Your task to perform on an android device: Go to calendar. Show me events next week Image 0: 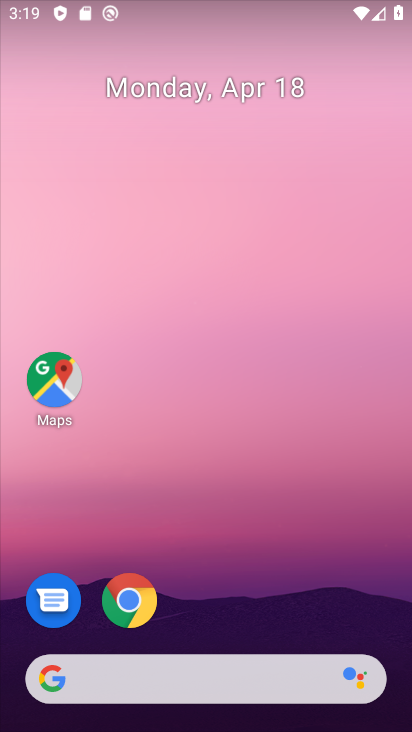
Step 0: drag from (348, 184) to (348, 123)
Your task to perform on an android device: Go to calendar. Show me events next week Image 1: 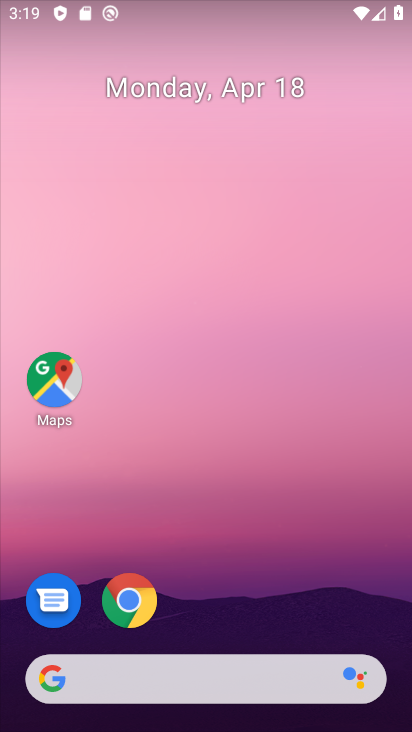
Step 1: drag from (387, 629) to (356, 76)
Your task to perform on an android device: Go to calendar. Show me events next week Image 2: 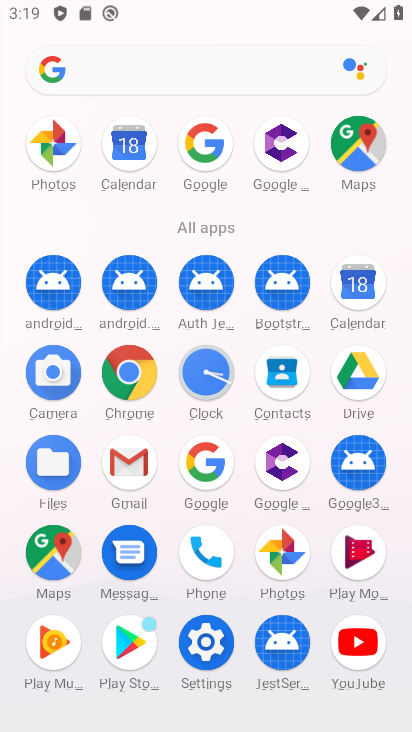
Step 2: click (352, 291)
Your task to perform on an android device: Go to calendar. Show me events next week Image 3: 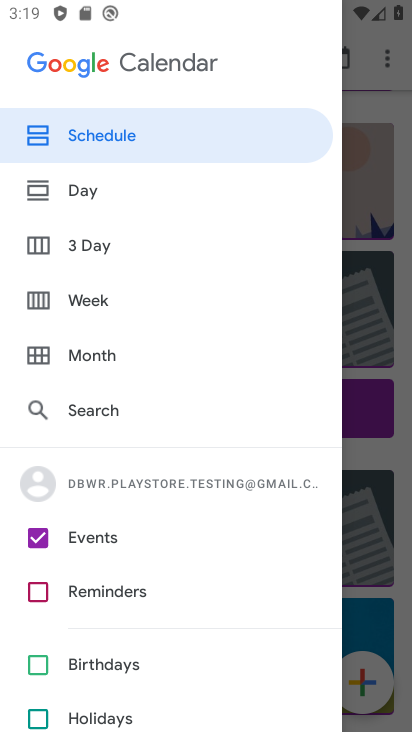
Step 3: click (380, 331)
Your task to perform on an android device: Go to calendar. Show me events next week Image 4: 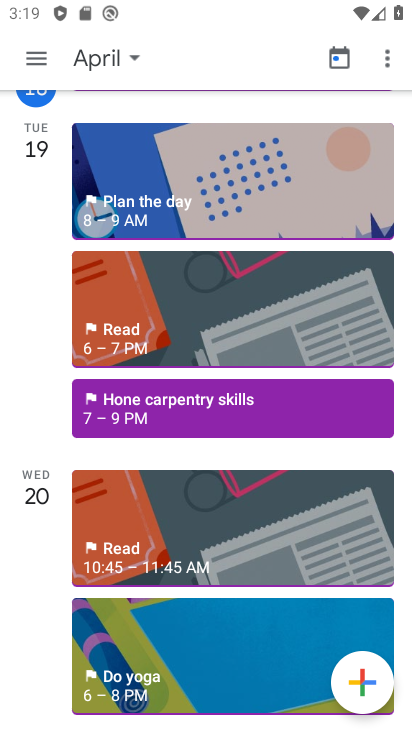
Step 4: click (131, 53)
Your task to perform on an android device: Go to calendar. Show me events next week Image 5: 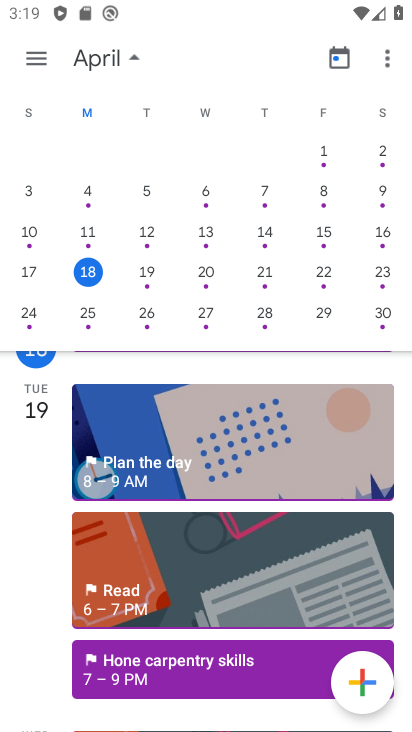
Step 5: drag from (360, 206) to (78, 185)
Your task to perform on an android device: Go to calendar. Show me events next week Image 6: 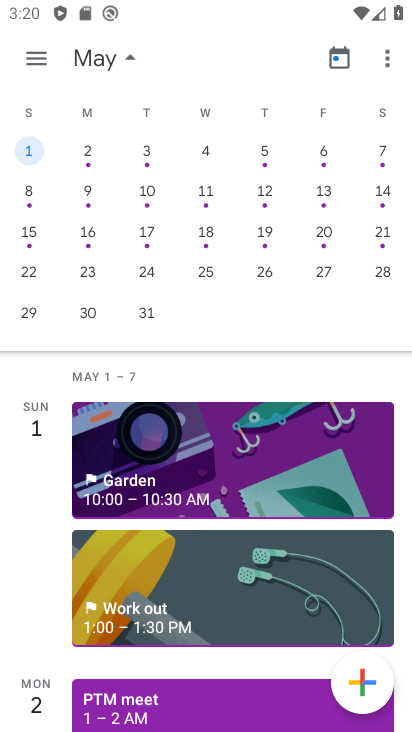
Step 6: drag from (45, 204) to (243, 219)
Your task to perform on an android device: Go to calendar. Show me events next week Image 7: 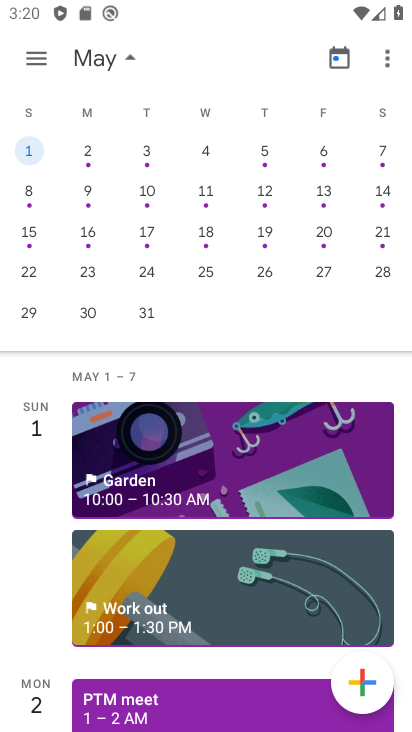
Step 7: drag from (7, 205) to (411, 174)
Your task to perform on an android device: Go to calendar. Show me events next week Image 8: 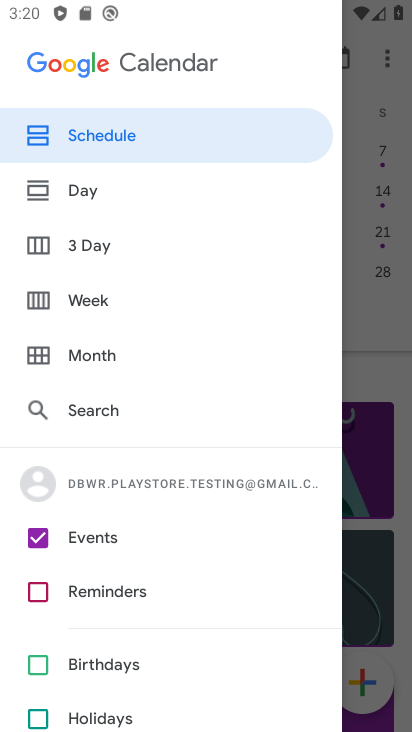
Step 8: click (404, 336)
Your task to perform on an android device: Go to calendar. Show me events next week Image 9: 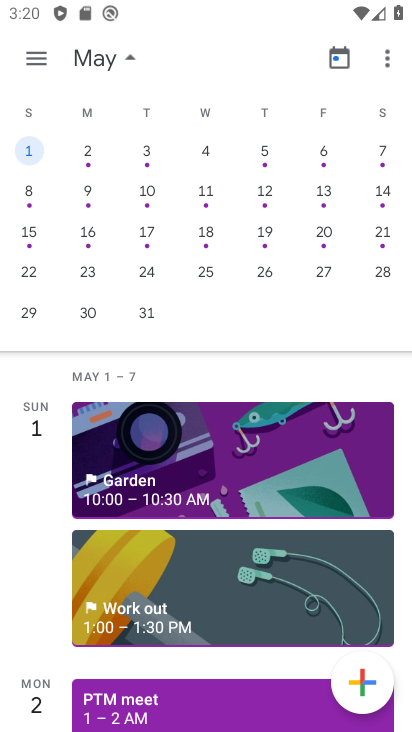
Step 9: drag from (14, 211) to (405, 230)
Your task to perform on an android device: Go to calendar. Show me events next week Image 10: 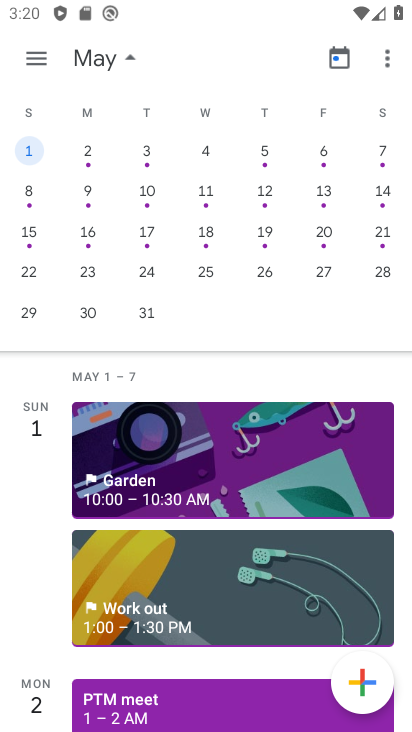
Step 10: drag from (5, 243) to (383, 242)
Your task to perform on an android device: Go to calendar. Show me events next week Image 11: 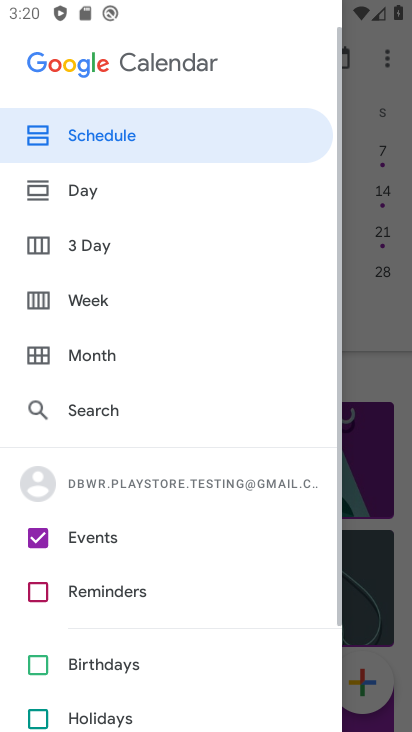
Step 11: click (385, 329)
Your task to perform on an android device: Go to calendar. Show me events next week Image 12: 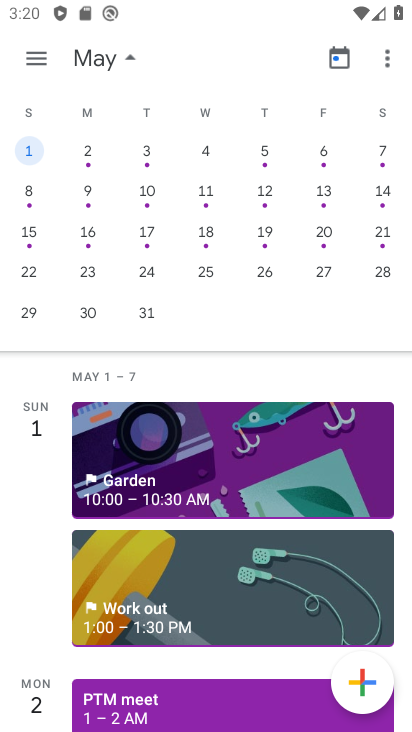
Step 12: drag from (30, 287) to (351, 305)
Your task to perform on an android device: Go to calendar. Show me events next week Image 13: 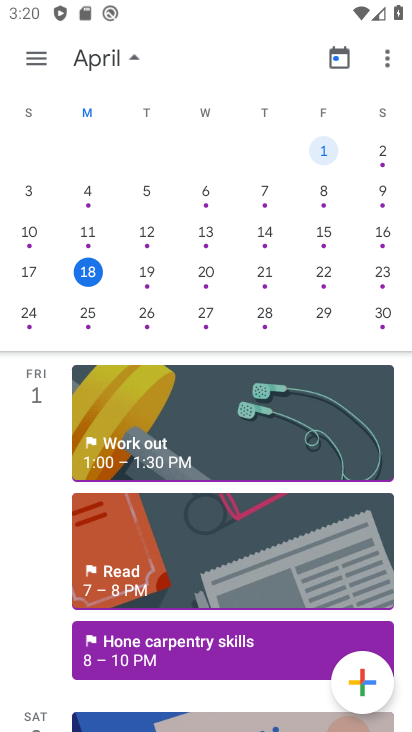
Step 13: click (144, 305)
Your task to perform on an android device: Go to calendar. Show me events next week Image 14: 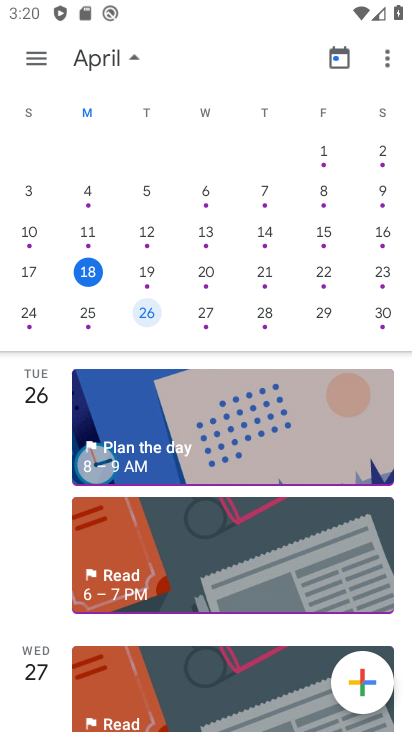
Step 14: task complete